Your task to perform on an android device: Search for seafood restaurants on Google Maps Image 0: 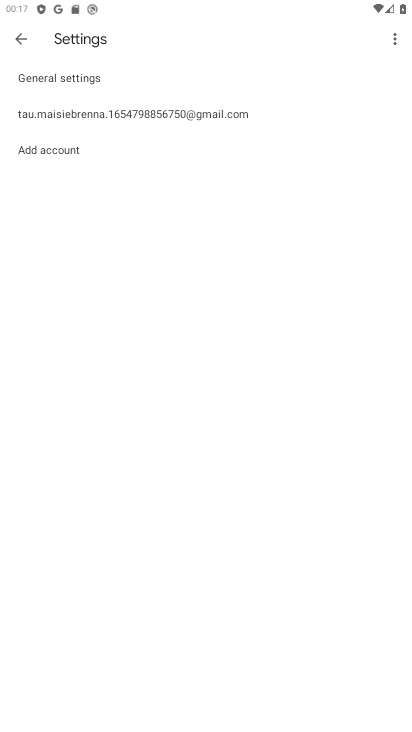
Step 0: press home button
Your task to perform on an android device: Search for seafood restaurants on Google Maps Image 1: 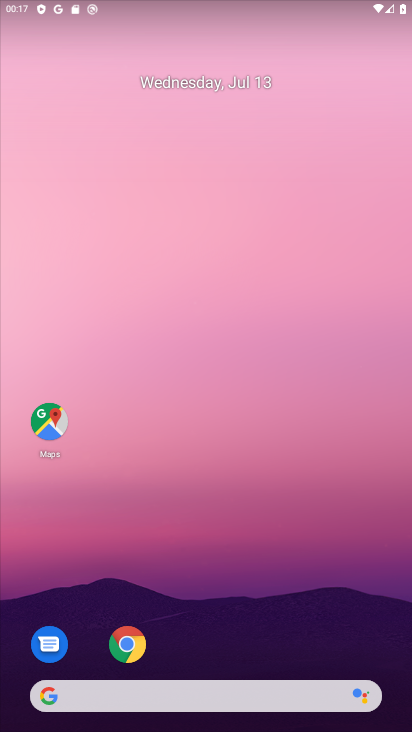
Step 1: click (40, 424)
Your task to perform on an android device: Search for seafood restaurants on Google Maps Image 2: 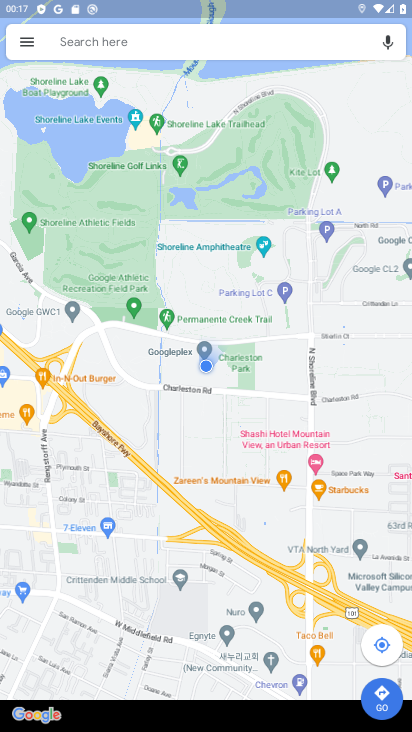
Step 2: click (202, 43)
Your task to perform on an android device: Search for seafood restaurants on Google Maps Image 3: 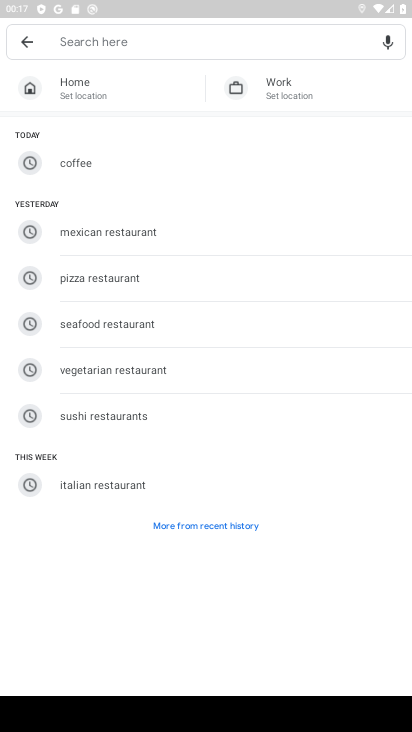
Step 3: type "seafood restaurants"
Your task to perform on an android device: Search for seafood restaurants on Google Maps Image 4: 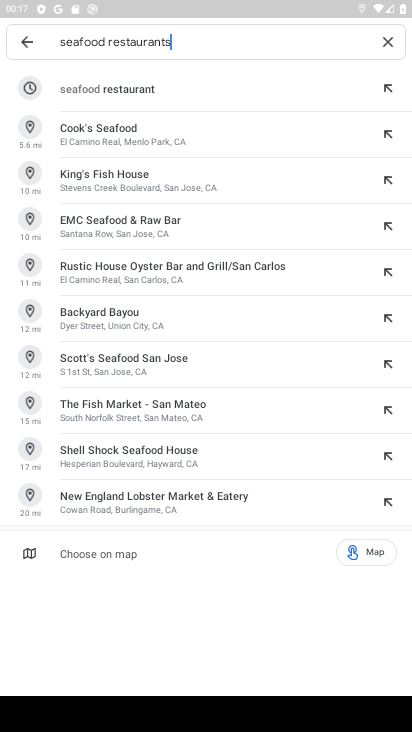
Step 4: click (117, 78)
Your task to perform on an android device: Search for seafood restaurants on Google Maps Image 5: 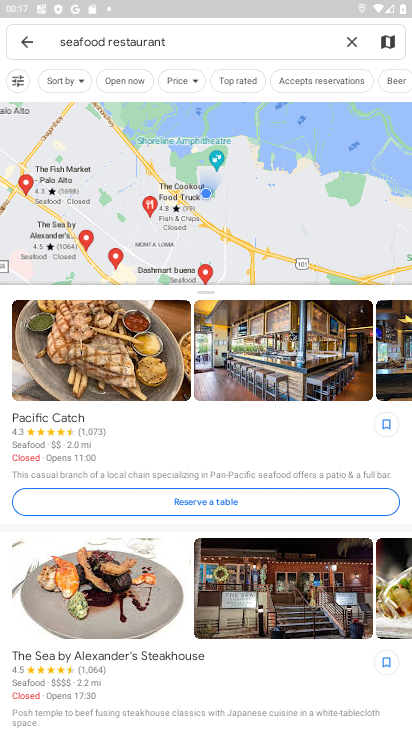
Step 5: task complete